Your task to perform on an android device: Open wifi settings Image 0: 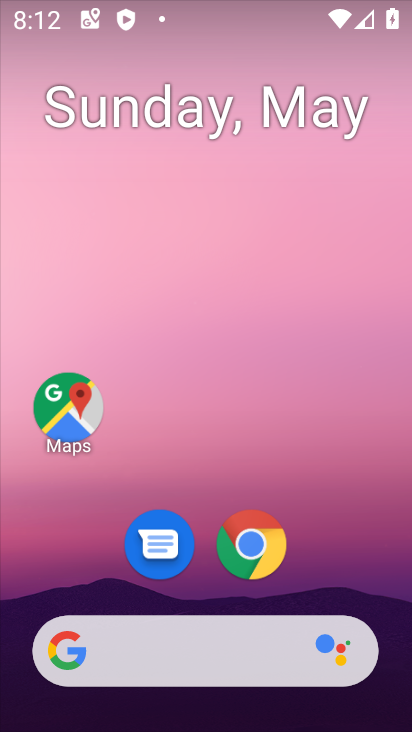
Step 0: drag from (341, 534) to (237, 3)
Your task to perform on an android device: Open wifi settings Image 1: 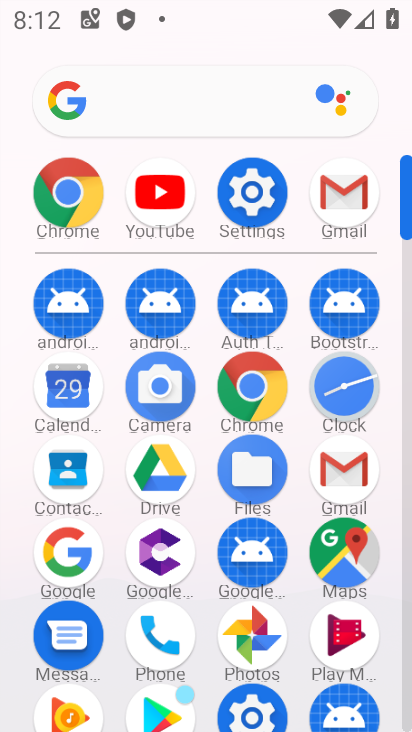
Step 1: drag from (4, 570) to (4, 229)
Your task to perform on an android device: Open wifi settings Image 2: 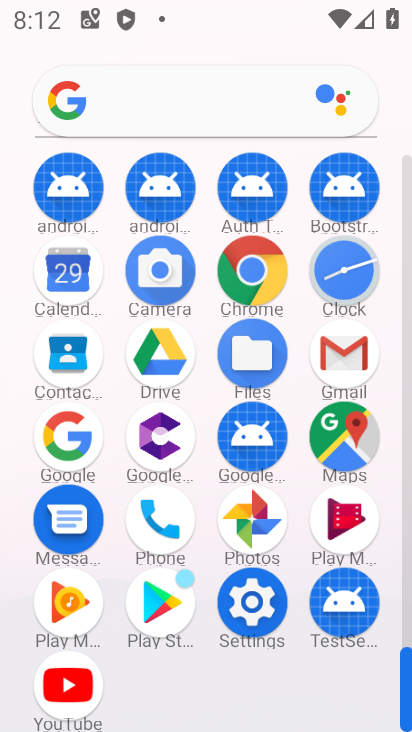
Step 2: click (247, 600)
Your task to perform on an android device: Open wifi settings Image 3: 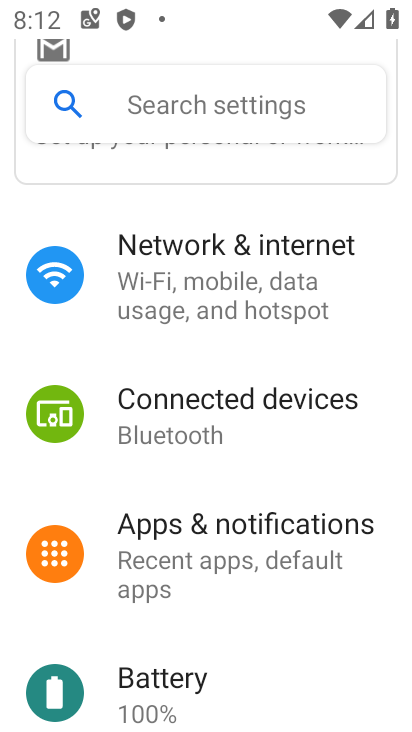
Step 3: click (253, 280)
Your task to perform on an android device: Open wifi settings Image 4: 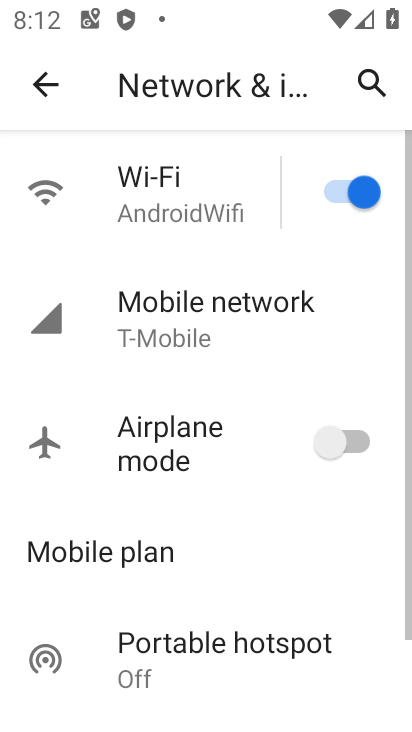
Step 4: click (173, 190)
Your task to perform on an android device: Open wifi settings Image 5: 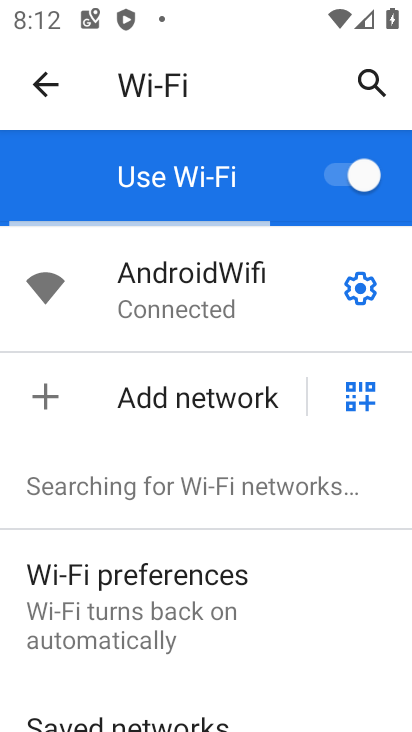
Step 5: task complete